Your task to perform on an android device: change alarm snooze length Image 0: 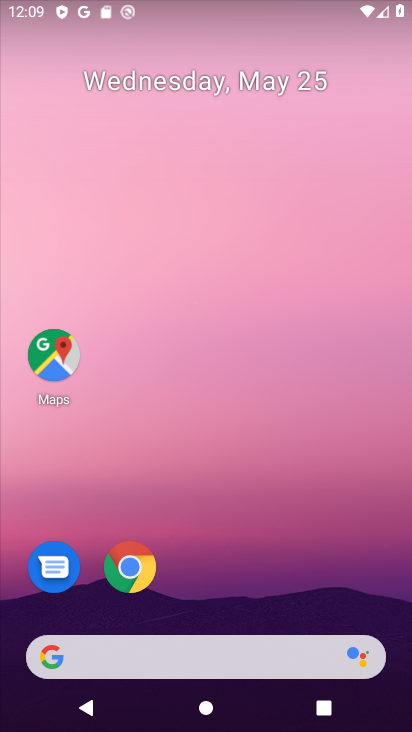
Step 0: drag from (238, 603) to (209, 88)
Your task to perform on an android device: change alarm snooze length Image 1: 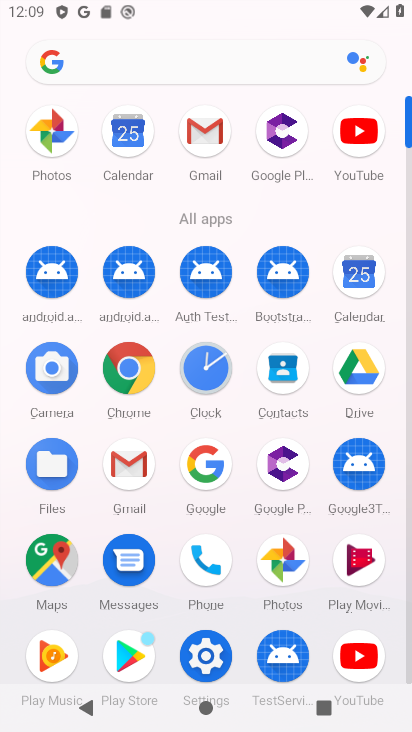
Step 1: click (206, 367)
Your task to perform on an android device: change alarm snooze length Image 2: 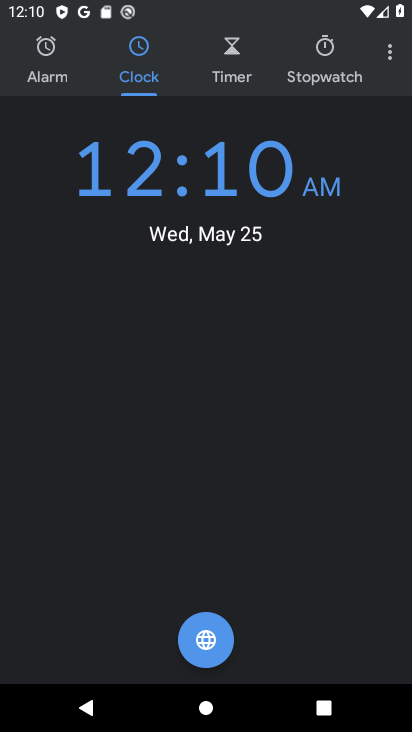
Step 2: click (390, 51)
Your task to perform on an android device: change alarm snooze length Image 3: 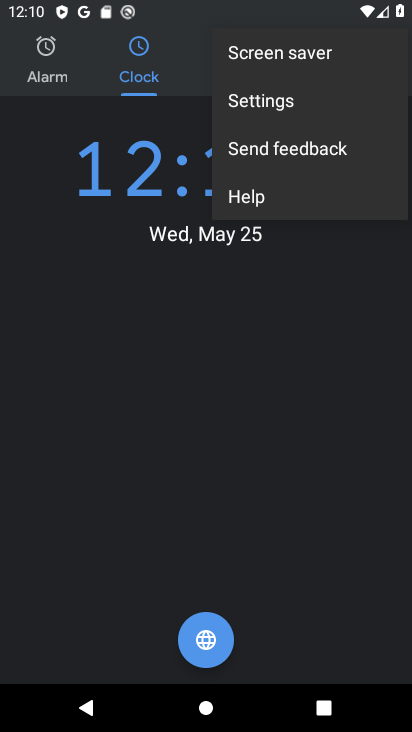
Step 3: click (274, 98)
Your task to perform on an android device: change alarm snooze length Image 4: 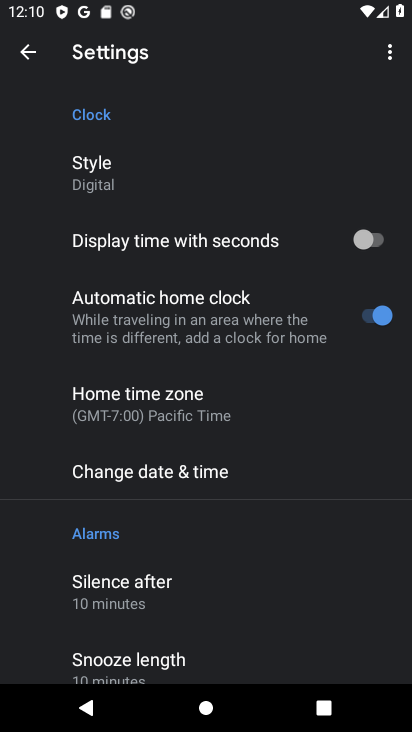
Step 4: drag from (226, 593) to (279, 472)
Your task to perform on an android device: change alarm snooze length Image 5: 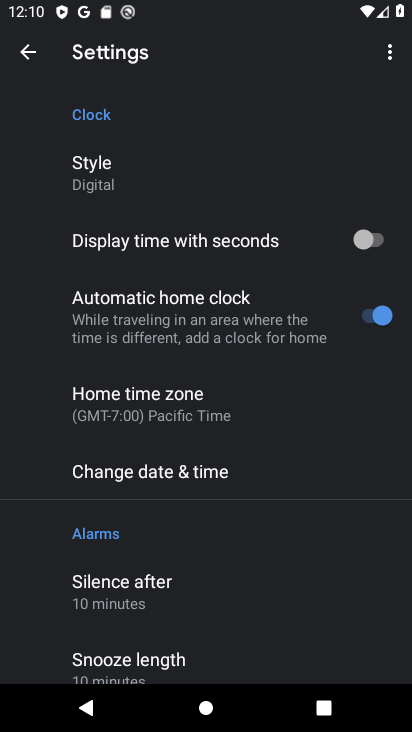
Step 5: drag from (220, 558) to (273, 397)
Your task to perform on an android device: change alarm snooze length Image 6: 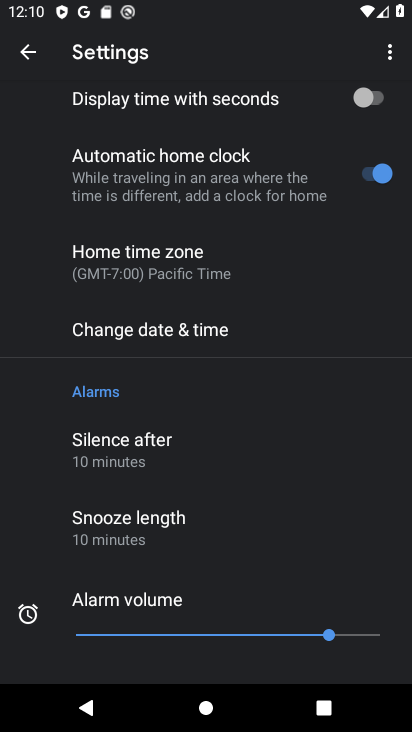
Step 6: click (143, 514)
Your task to perform on an android device: change alarm snooze length Image 7: 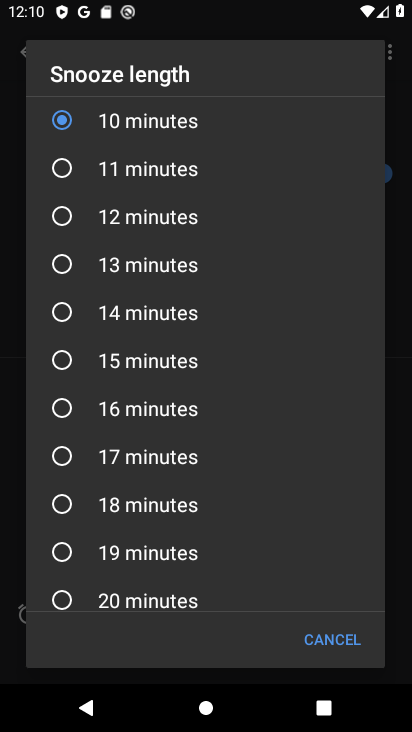
Step 7: click (63, 272)
Your task to perform on an android device: change alarm snooze length Image 8: 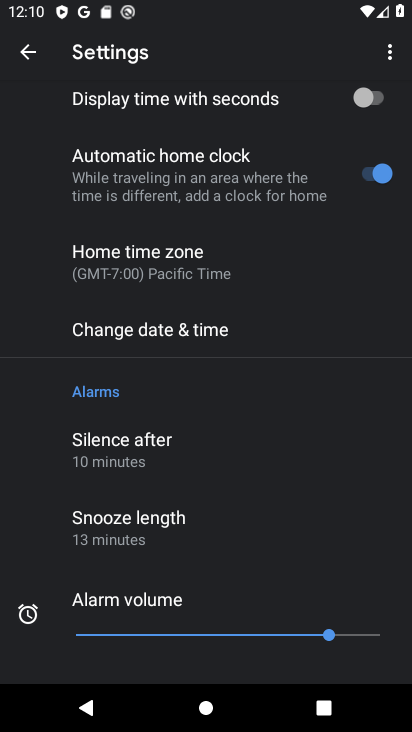
Step 8: task complete